Your task to perform on an android device: See recent photos Image 0: 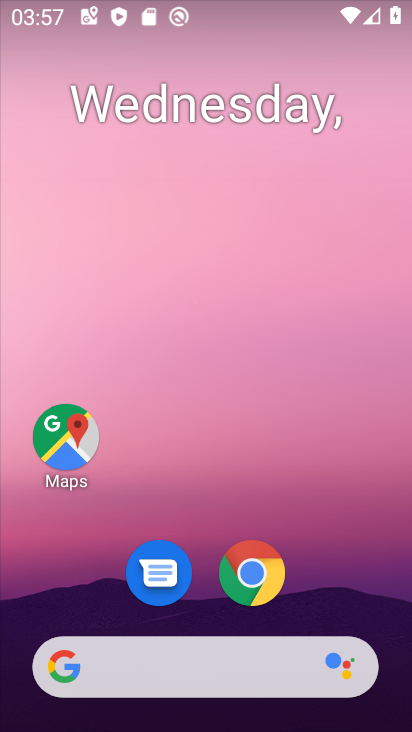
Step 0: drag from (316, 550) to (250, 151)
Your task to perform on an android device: See recent photos Image 1: 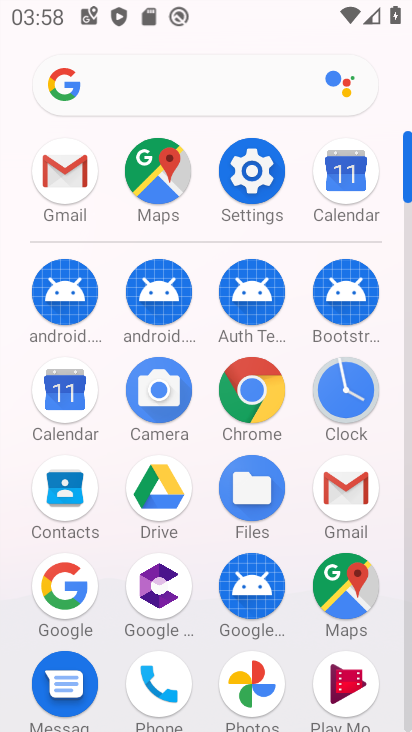
Step 1: drag from (195, 610) to (179, 431)
Your task to perform on an android device: See recent photos Image 2: 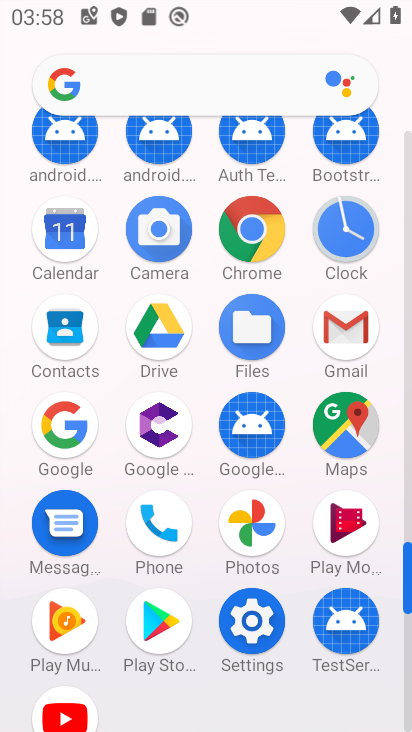
Step 2: click (251, 526)
Your task to perform on an android device: See recent photos Image 3: 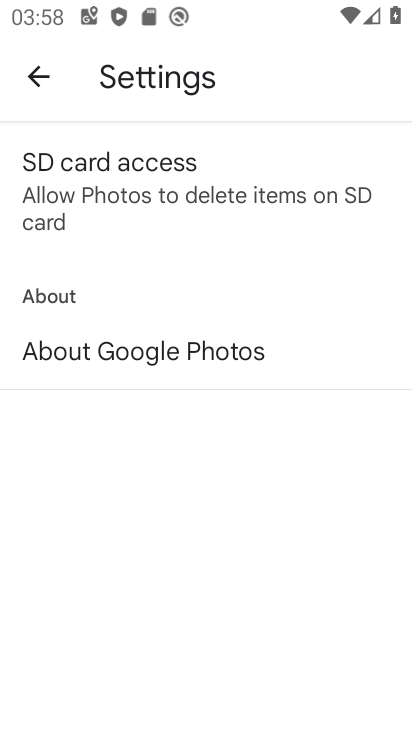
Step 3: press back button
Your task to perform on an android device: See recent photos Image 4: 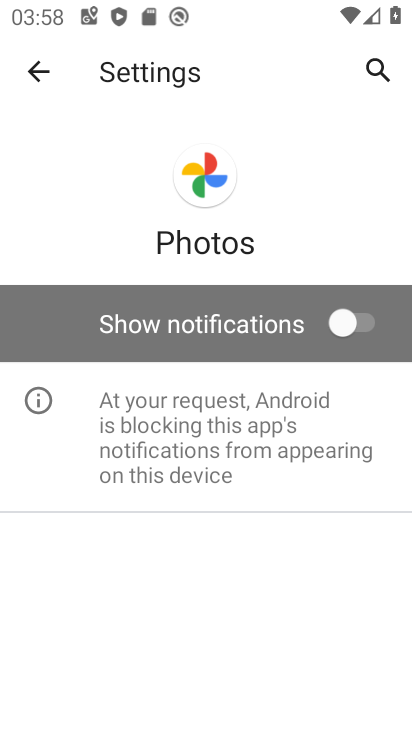
Step 4: press back button
Your task to perform on an android device: See recent photos Image 5: 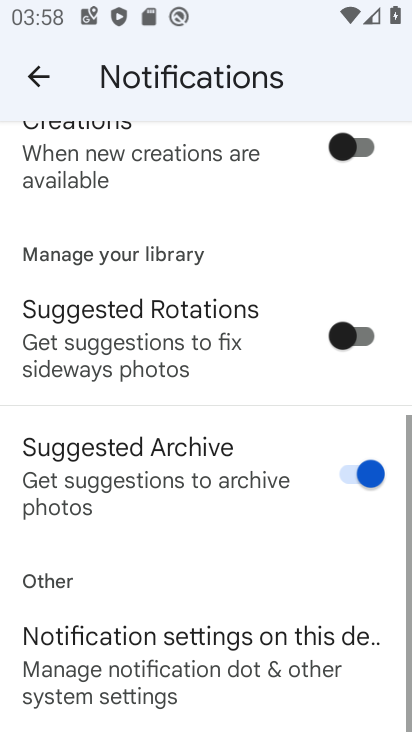
Step 5: press back button
Your task to perform on an android device: See recent photos Image 6: 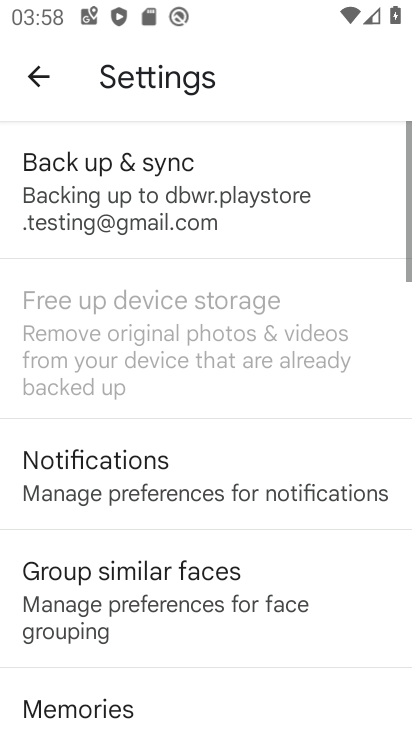
Step 6: press back button
Your task to perform on an android device: See recent photos Image 7: 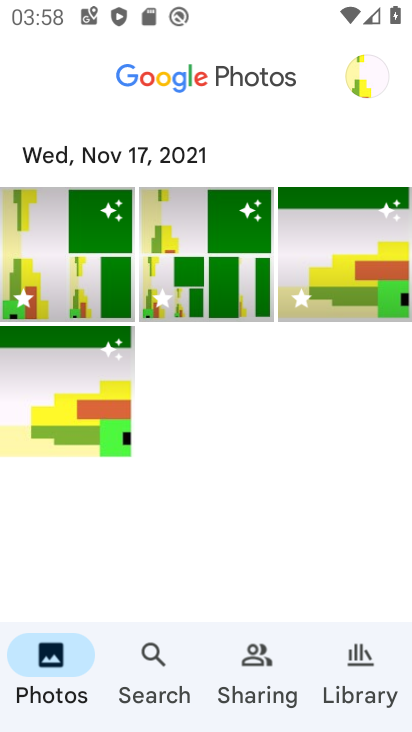
Step 7: click (357, 670)
Your task to perform on an android device: See recent photos Image 8: 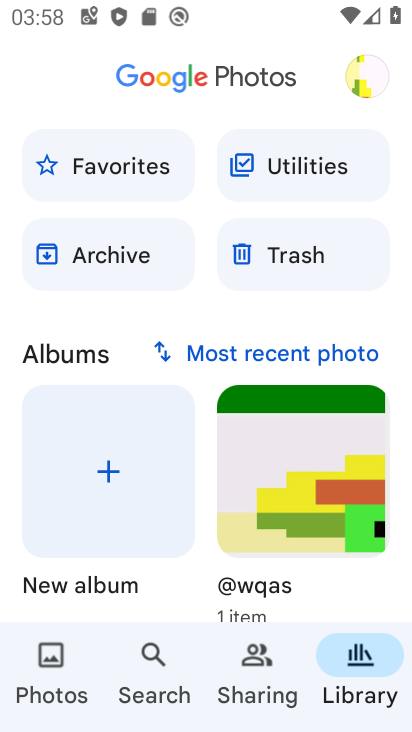
Step 8: click (332, 414)
Your task to perform on an android device: See recent photos Image 9: 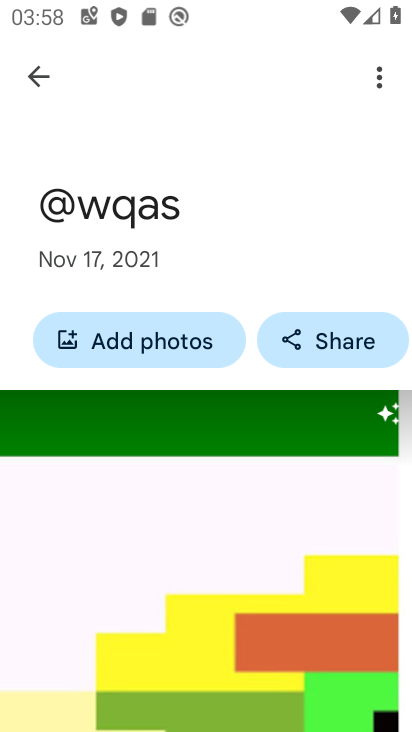
Step 9: task complete